Your task to perform on an android device: What's the weather? Image 0: 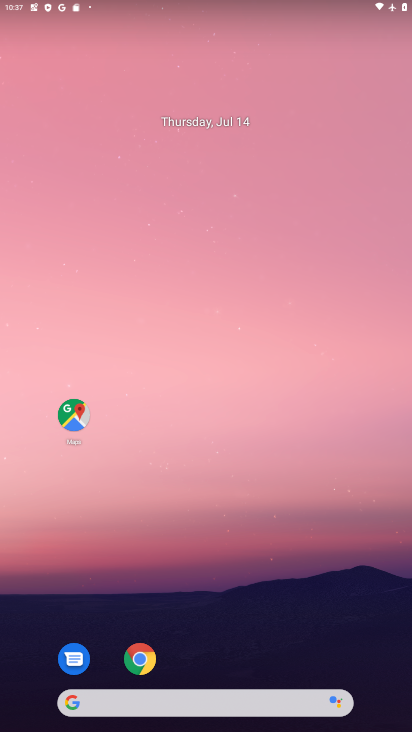
Step 0: drag from (265, 586) to (330, 136)
Your task to perform on an android device: What's the weather? Image 1: 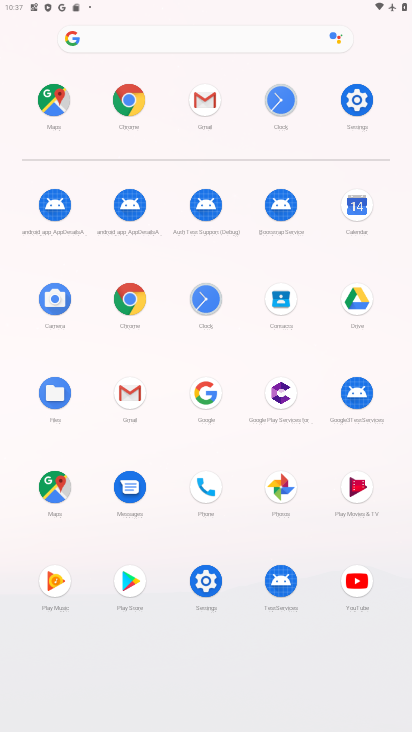
Step 1: click (127, 304)
Your task to perform on an android device: What's the weather? Image 2: 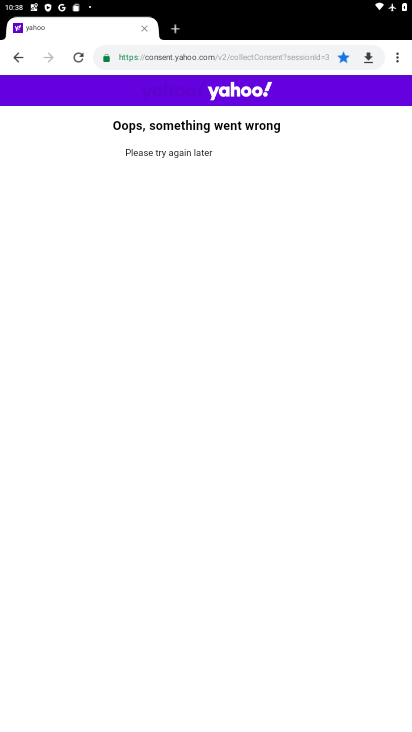
Step 2: click (263, 51)
Your task to perform on an android device: What's the weather? Image 3: 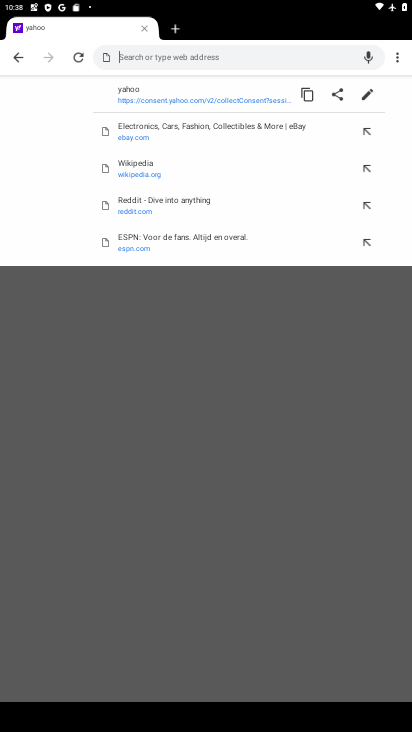
Step 3: type "weather"
Your task to perform on an android device: What's the weather? Image 4: 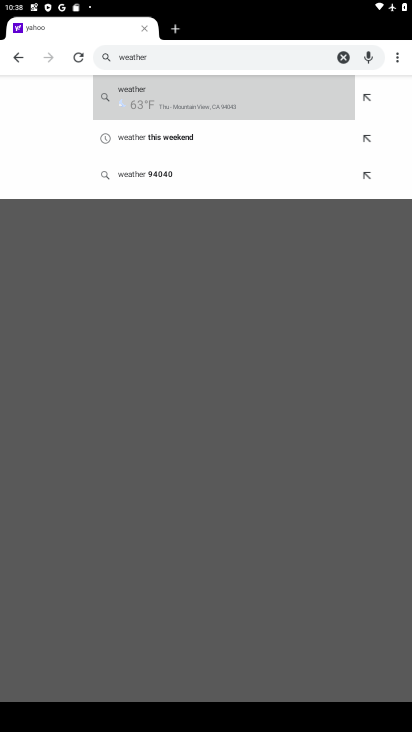
Step 4: click (152, 110)
Your task to perform on an android device: What's the weather? Image 5: 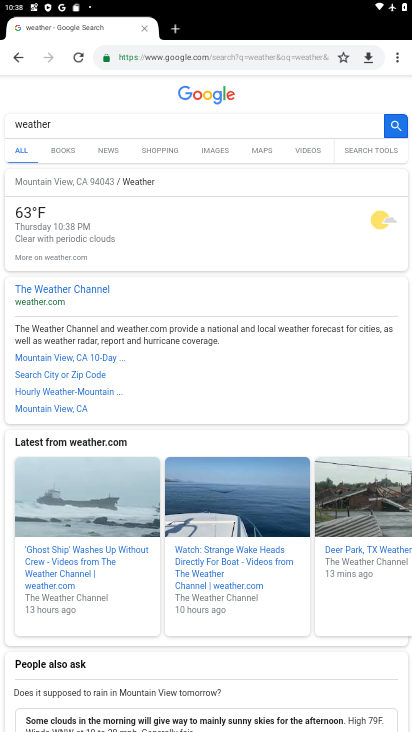
Step 5: task complete